Your task to perform on an android device: Go to display settings Image 0: 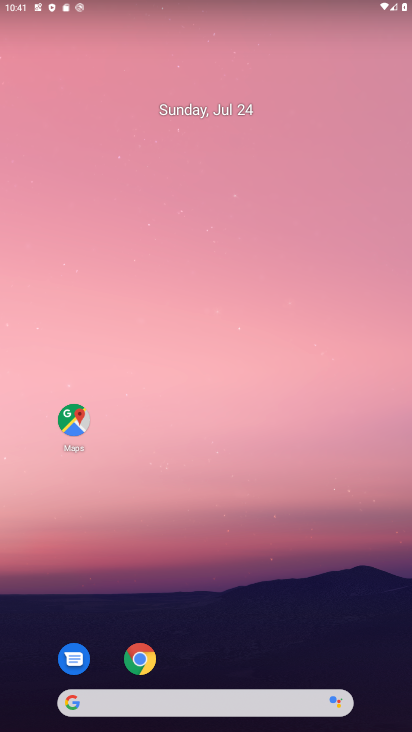
Step 0: drag from (187, 702) to (283, 32)
Your task to perform on an android device: Go to display settings Image 1: 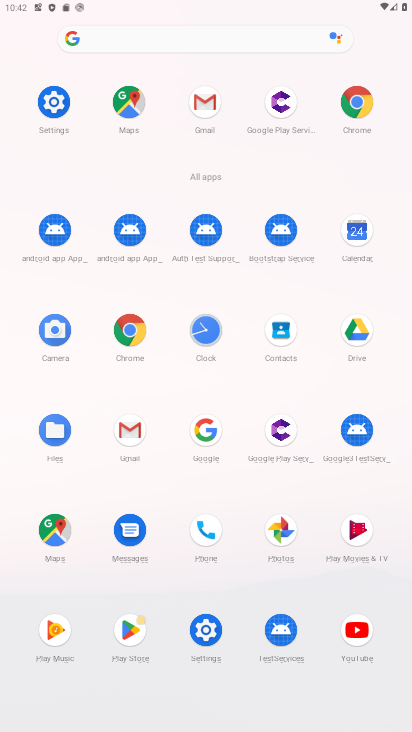
Step 1: click (55, 101)
Your task to perform on an android device: Go to display settings Image 2: 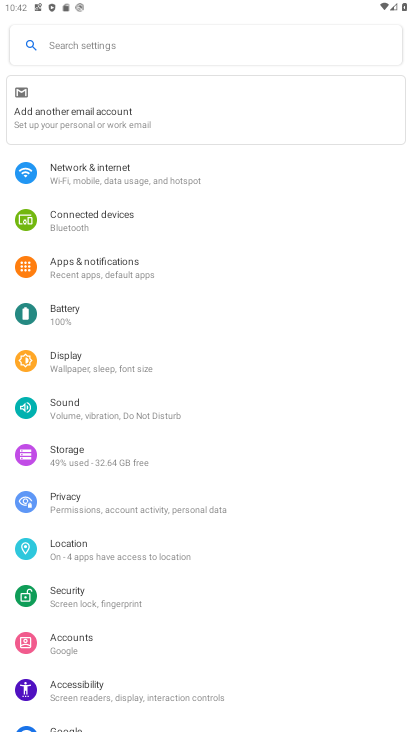
Step 2: click (99, 369)
Your task to perform on an android device: Go to display settings Image 3: 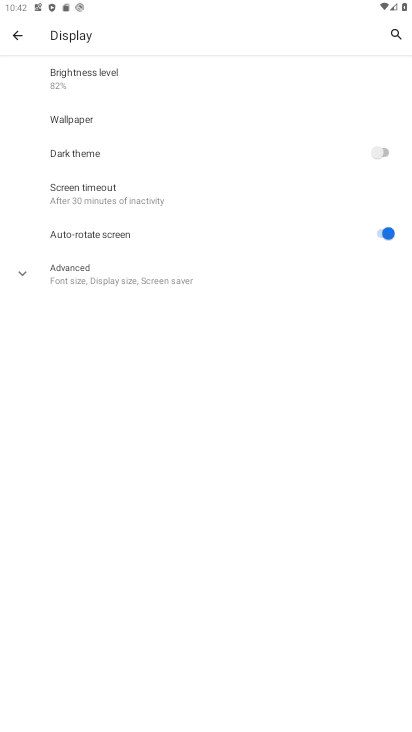
Step 3: task complete